Your task to perform on an android device: Search for seafood restaurants on Google Maps Image 0: 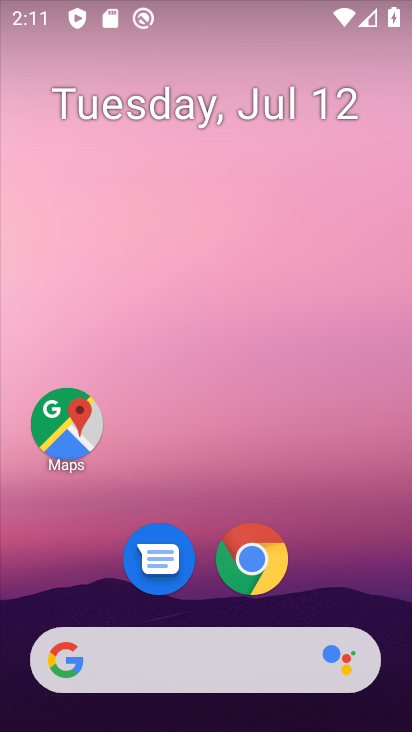
Step 0: drag from (341, 560) to (344, 201)
Your task to perform on an android device: Search for seafood restaurants on Google Maps Image 1: 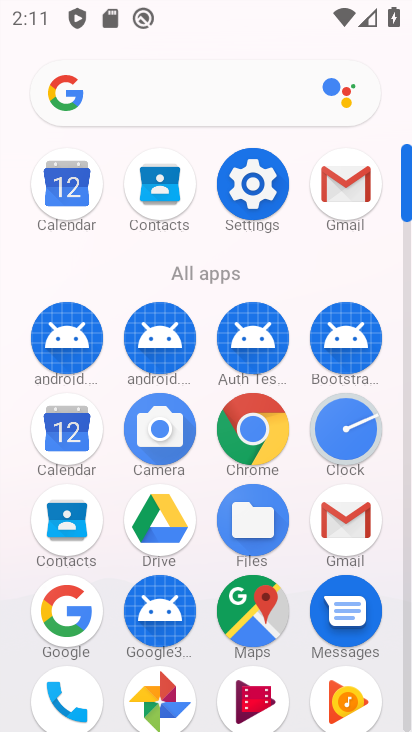
Step 1: click (251, 617)
Your task to perform on an android device: Search for seafood restaurants on Google Maps Image 2: 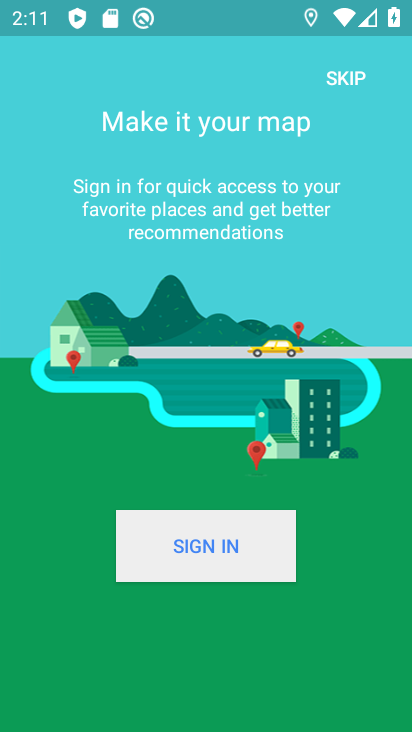
Step 2: task complete